Your task to perform on an android device: read, delete, or share a saved page in the chrome app Image 0: 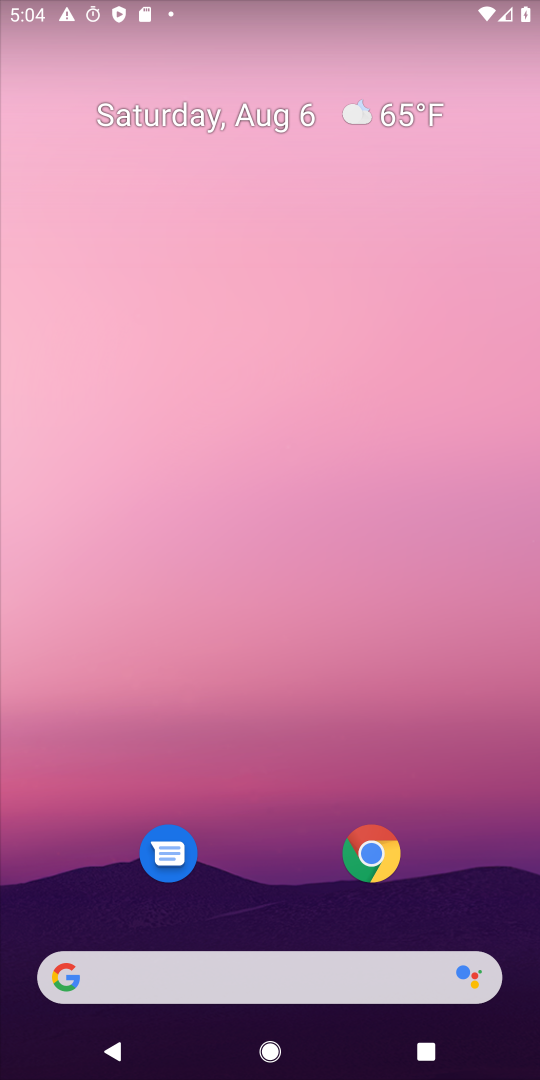
Step 0: drag from (248, 819) to (243, 6)
Your task to perform on an android device: read, delete, or share a saved page in the chrome app Image 1: 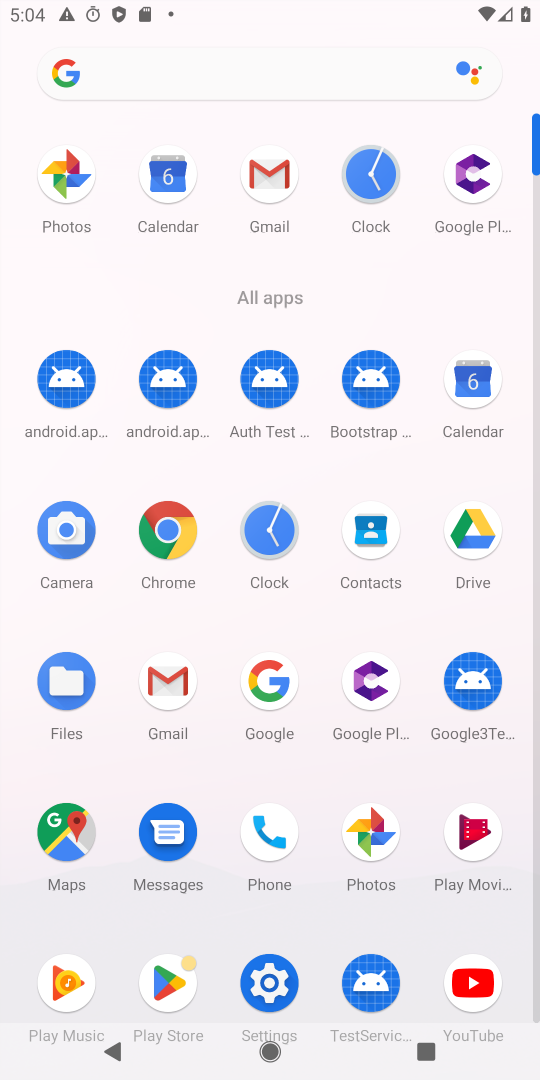
Step 1: click (168, 516)
Your task to perform on an android device: read, delete, or share a saved page in the chrome app Image 2: 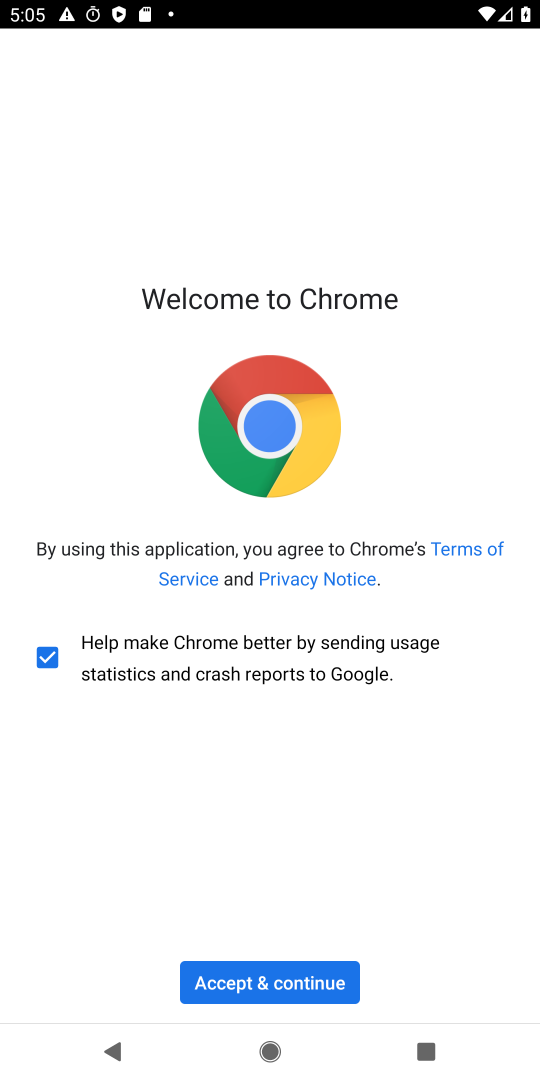
Step 2: click (310, 991)
Your task to perform on an android device: read, delete, or share a saved page in the chrome app Image 3: 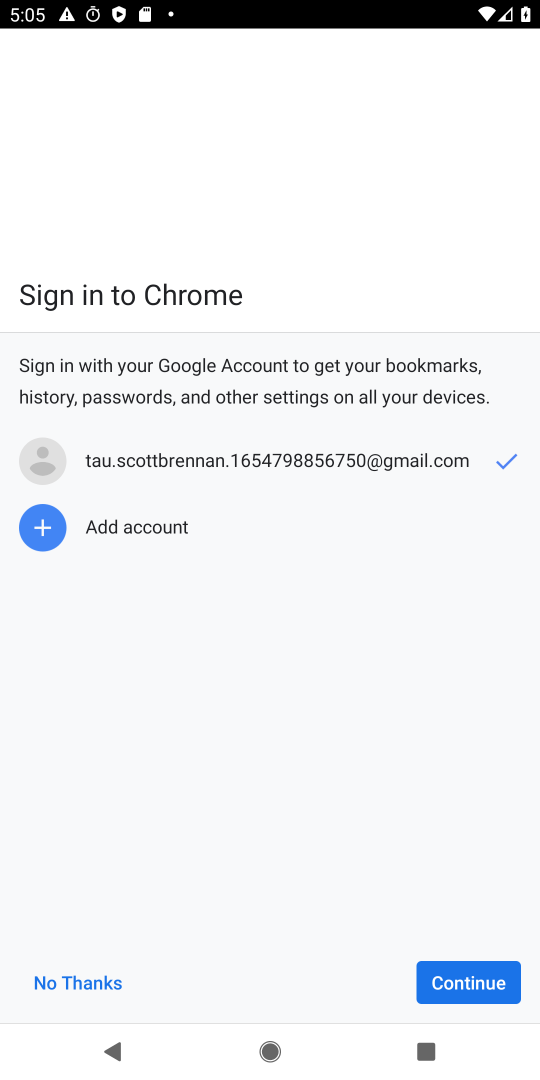
Step 3: click (507, 989)
Your task to perform on an android device: read, delete, or share a saved page in the chrome app Image 4: 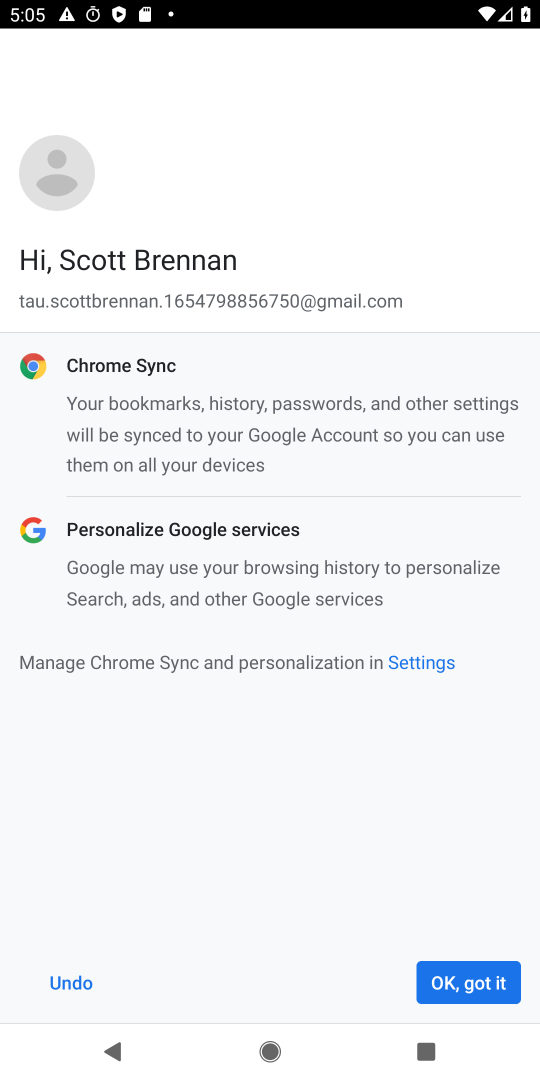
Step 4: click (500, 977)
Your task to perform on an android device: read, delete, or share a saved page in the chrome app Image 5: 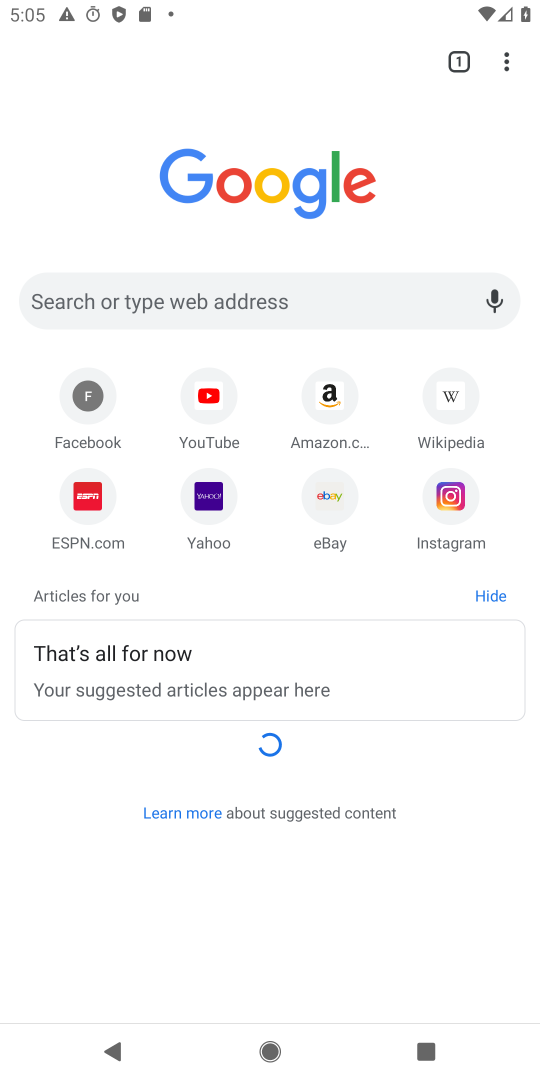
Step 5: task complete